Your task to perform on an android device: change the clock display to digital Image 0: 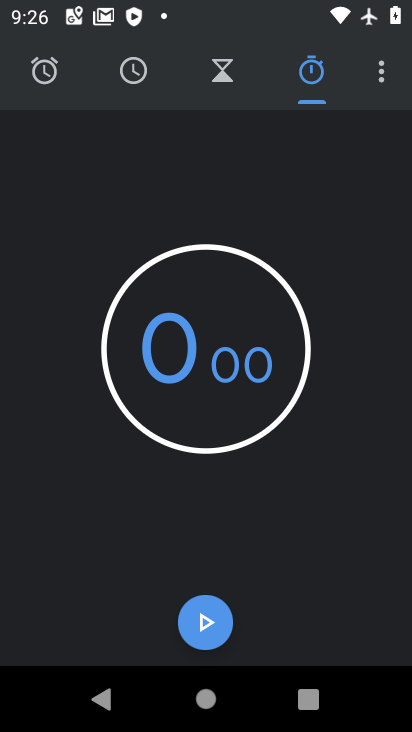
Step 0: task complete